Your task to perform on an android device: open chrome and create a bookmark for the current page Image 0: 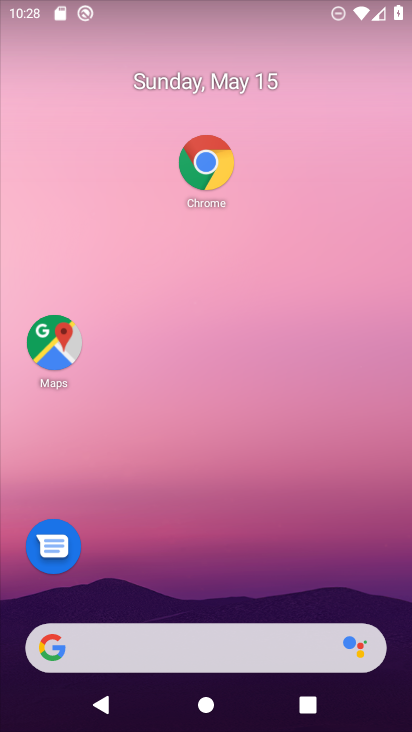
Step 0: drag from (217, 567) to (302, 217)
Your task to perform on an android device: open chrome and create a bookmark for the current page Image 1: 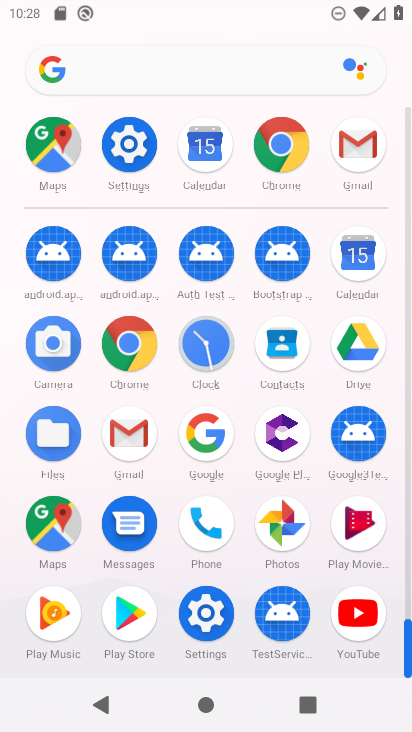
Step 1: click (124, 336)
Your task to perform on an android device: open chrome and create a bookmark for the current page Image 2: 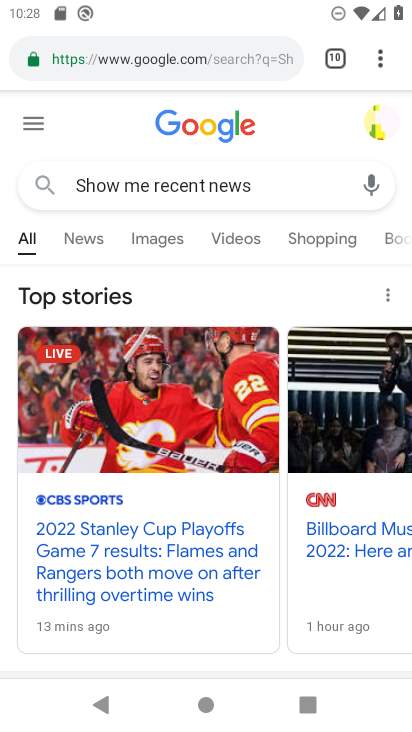
Step 2: click (360, 56)
Your task to perform on an android device: open chrome and create a bookmark for the current page Image 3: 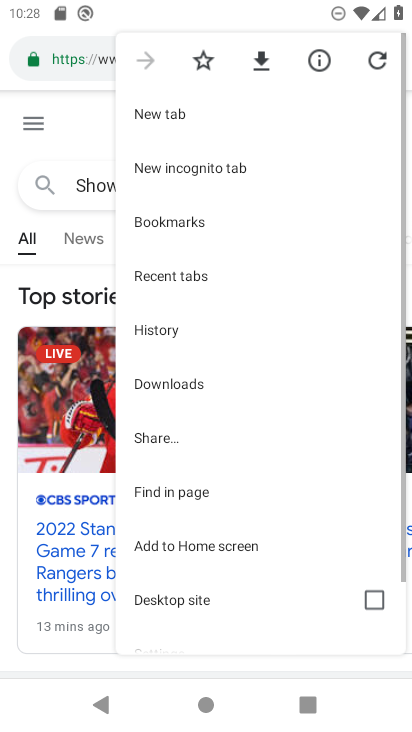
Step 3: click (204, 61)
Your task to perform on an android device: open chrome and create a bookmark for the current page Image 4: 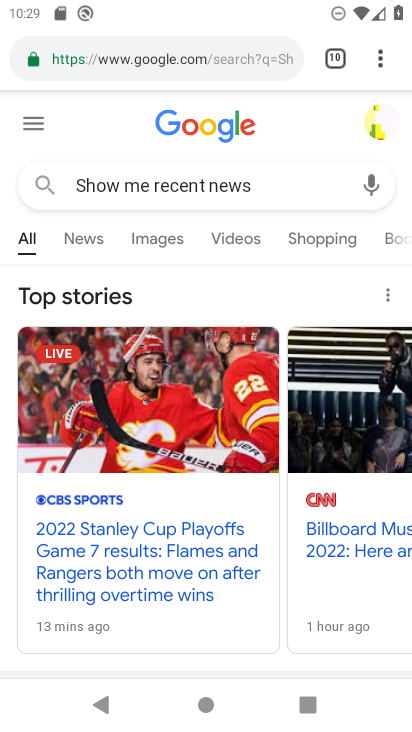
Step 4: task complete